Your task to perform on an android device: open the mobile data screen to see how much data has been used Image 0: 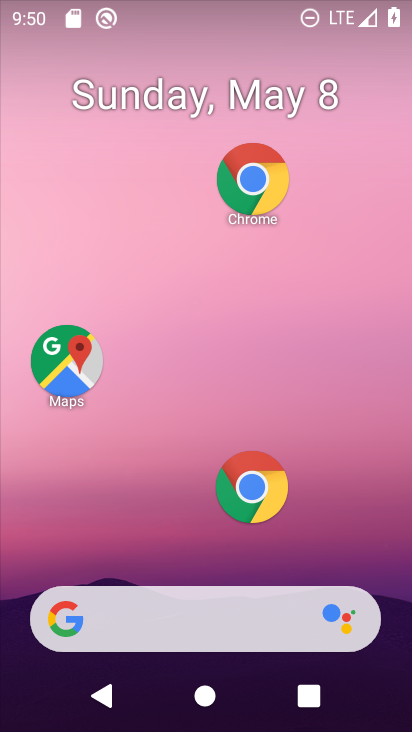
Step 0: drag from (176, 489) to (179, 0)
Your task to perform on an android device: open the mobile data screen to see how much data has been used Image 1: 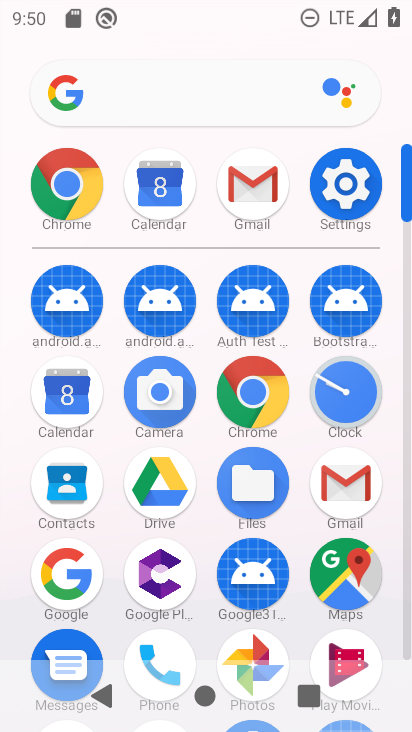
Step 1: click (336, 184)
Your task to perform on an android device: open the mobile data screen to see how much data has been used Image 2: 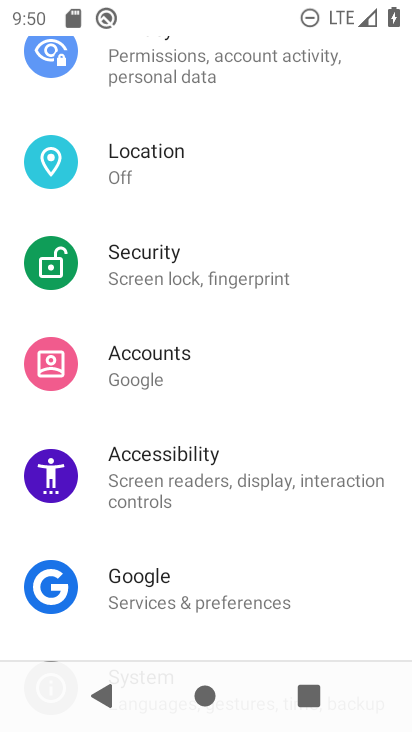
Step 2: drag from (258, 175) to (253, 539)
Your task to perform on an android device: open the mobile data screen to see how much data has been used Image 3: 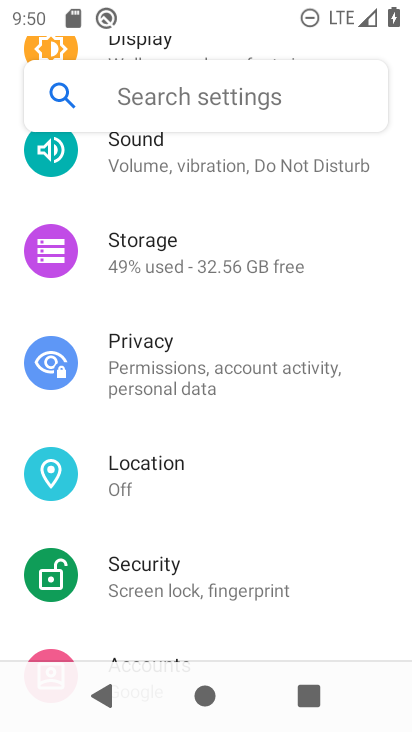
Step 3: drag from (236, 239) to (251, 572)
Your task to perform on an android device: open the mobile data screen to see how much data has been used Image 4: 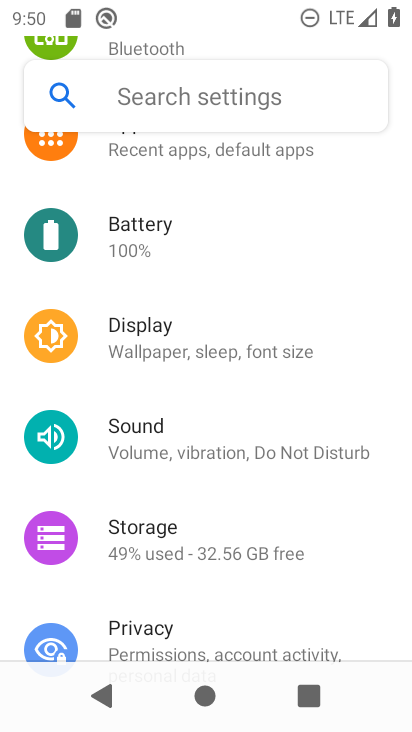
Step 4: drag from (239, 232) to (264, 619)
Your task to perform on an android device: open the mobile data screen to see how much data has been used Image 5: 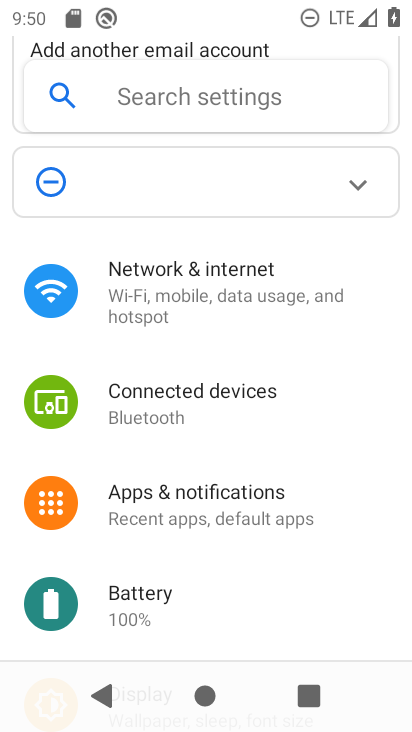
Step 5: click (228, 283)
Your task to perform on an android device: open the mobile data screen to see how much data has been used Image 6: 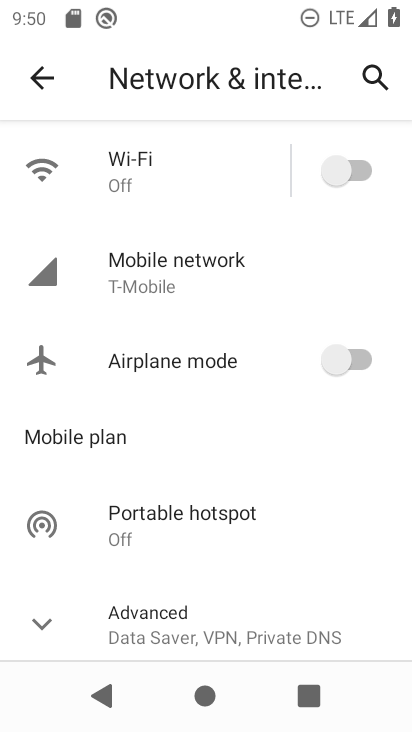
Step 6: click (231, 251)
Your task to perform on an android device: open the mobile data screen to see how much data has been used Image 7: 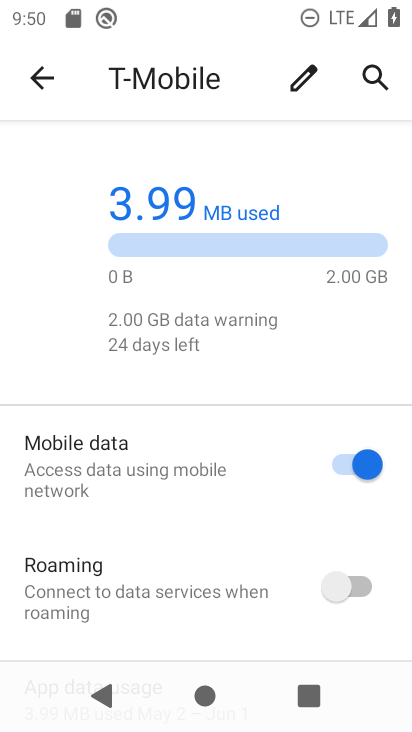
Step 7: task complete